Your task to perform on an android device: delete the emails in spam in the gmail app Image 0: 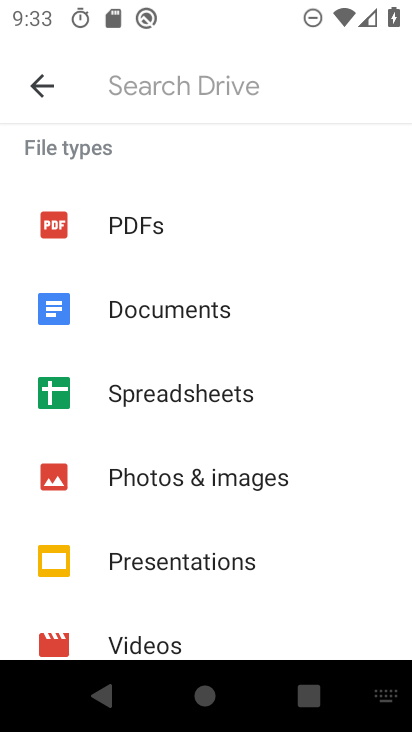
Step 0: press home button
Your task to perform on an android device: delete the emails in spam in the gmail app Image 1: 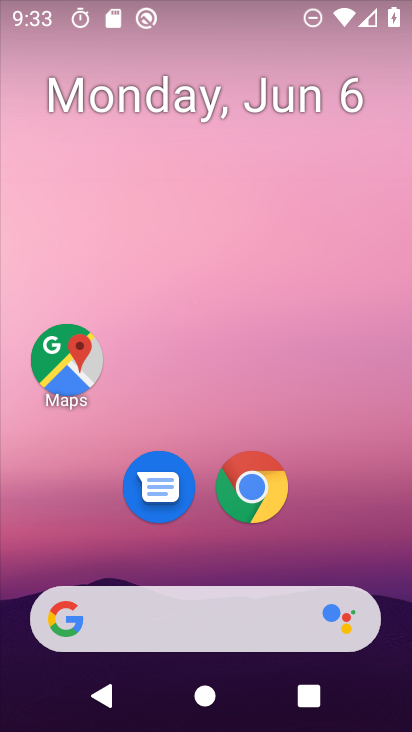
Step 1: drag from (381, 645) to (284, 80)
Your task to perform on an android device: delete the emails in spam in the gmail app Image 2: 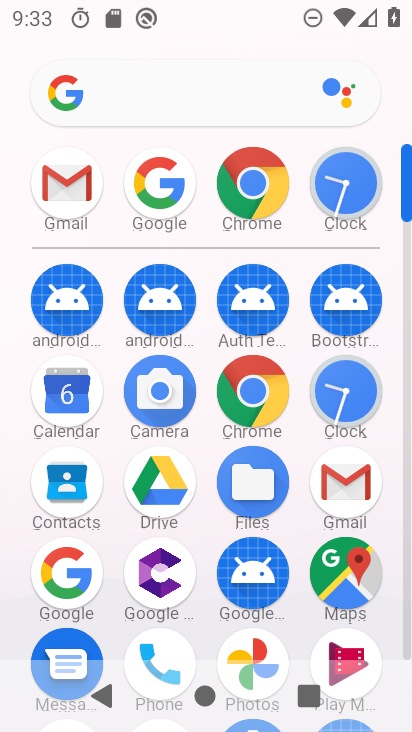
Step 2: click (346, 492)
Your task to perform on an android device: delete the emails in spam in the gmail app Image 3: 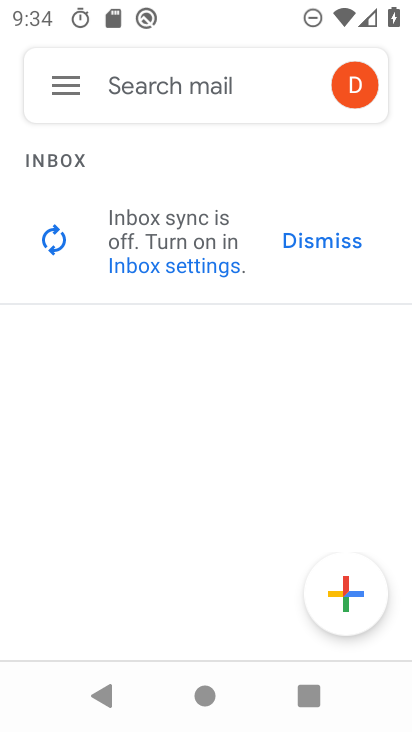
Step 3: task complete